Your task to perform on an android device: Show me productivity apps on the Play Store Image 0: 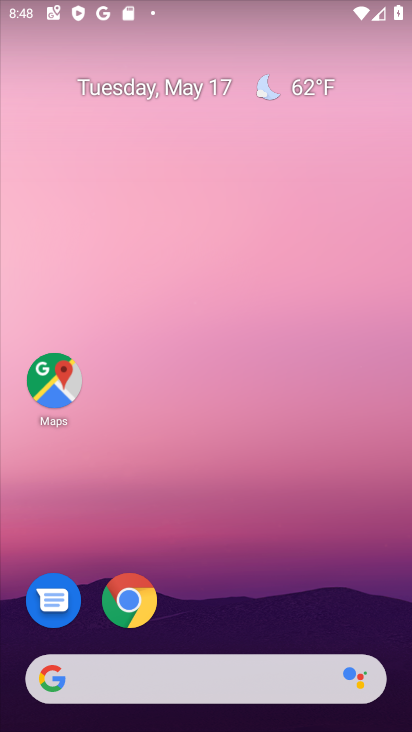
Step 0: click (171, 84)
Your task to perform on an android device: Show me productivity apps on the Play Store Image 1: 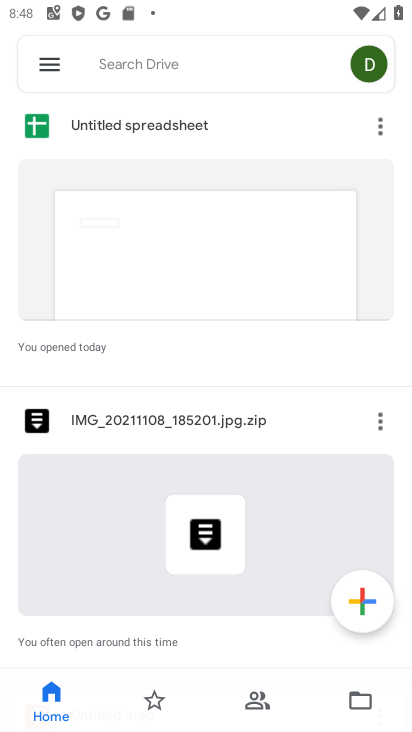
Step 1: press home button
Your task to perform on an android device: Show me productivity apps on the Play Store Image 2: 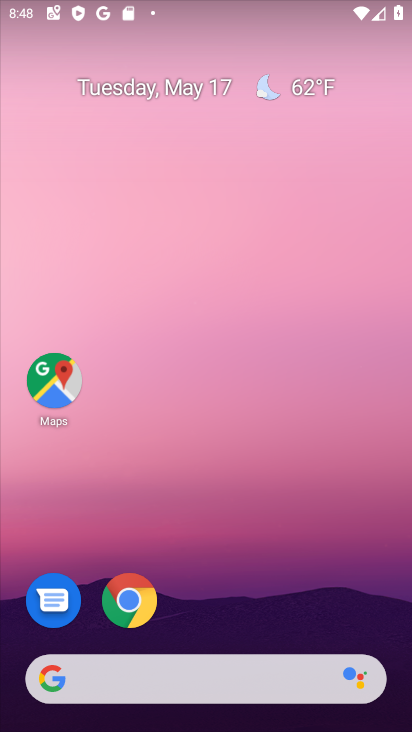
Step 2: drag from (232, 725) to (238, 39)
Your task to perform on an android device: Show me productivity apps on the Play Store Image 3: 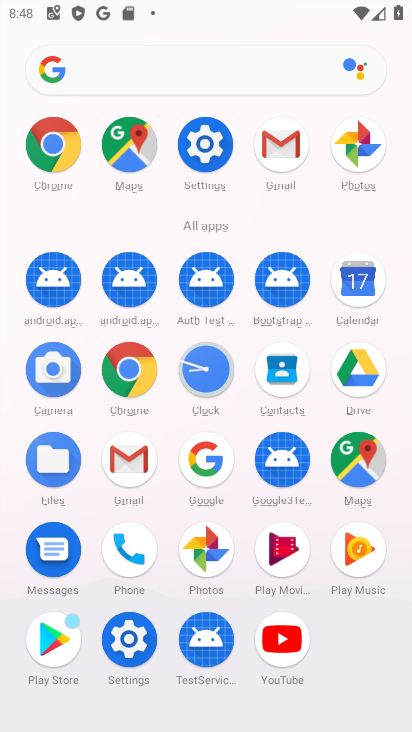
Step 3: click (56, 642)
Your task to perform on an android device: Show me productivity apps on the Play Store Image 4: 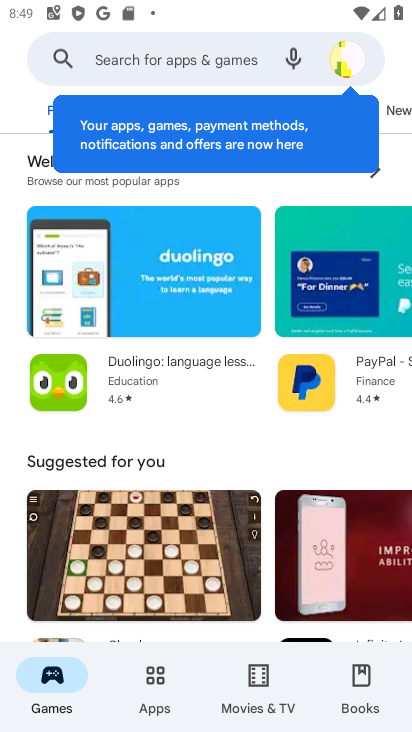
Step 4: click (162, 682)
Your task to perform on an android device: Show me productivity apps on the Play Store Image 5: 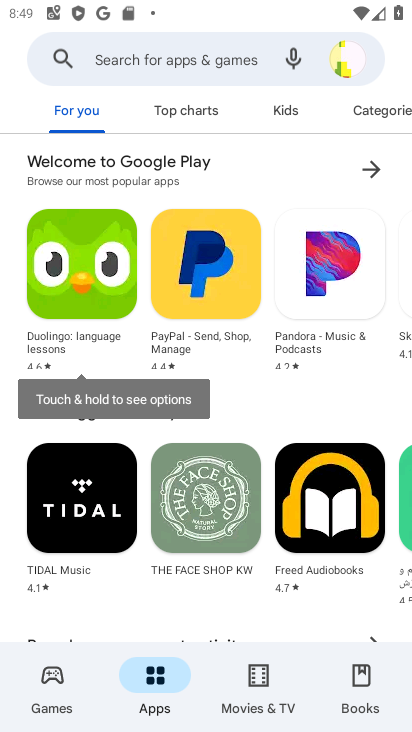
Step 5: drag from (363, 107) to (3, 160)
Your task to perform on an android device: Show me productivity apps on the Play Store Image 6: 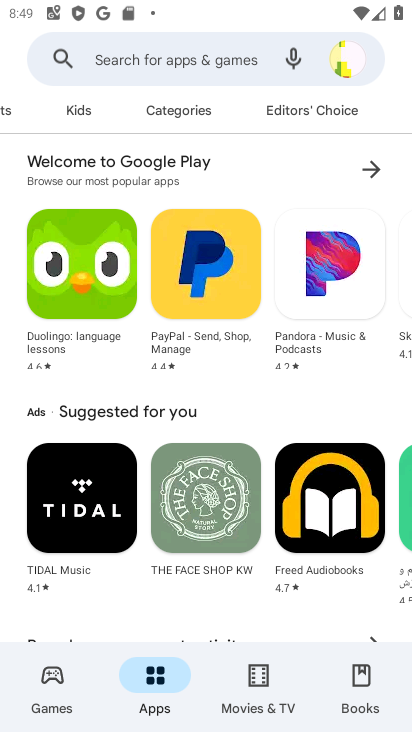
Step 6: click (166, 107)
Your task to perform on an android device: Show me productivity apps on the Play Store Image 7: 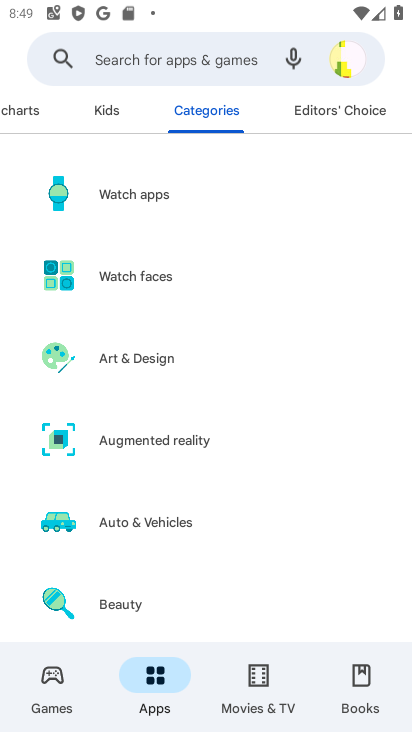
Step 7: drag from (173, 591) to (152, 189)
Your task to perform on an android device: Show me productivity apps on the Play Store Image 8: 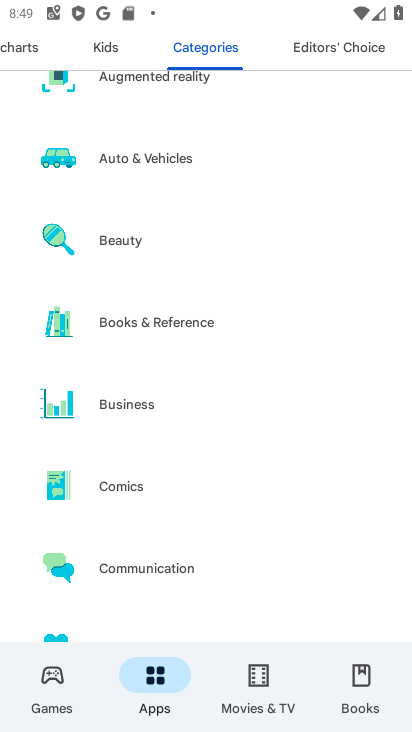
Step 8: drag from (175, 582) to (173, 259)
Your task to perform on an android device: Show me productivity apps on the Play Store Image 9: 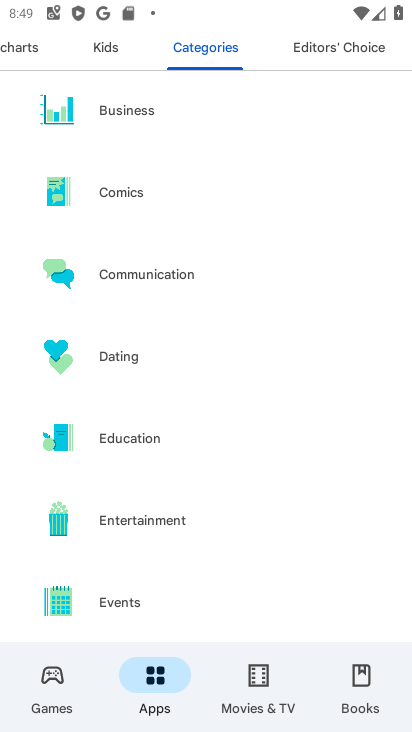
Step 9: drag from (159, 557) to (183, 208)
Your task to perform on an android device: Show me productivity apps on the Play Store Image 10: 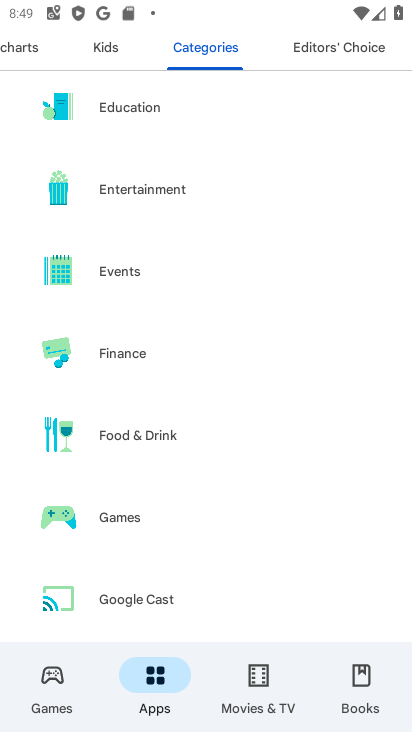
Step 10: drag from (194, 498) to (210, 218)
Your task to perform on an android device: Show me productivity apps on the Play Store Image 11: 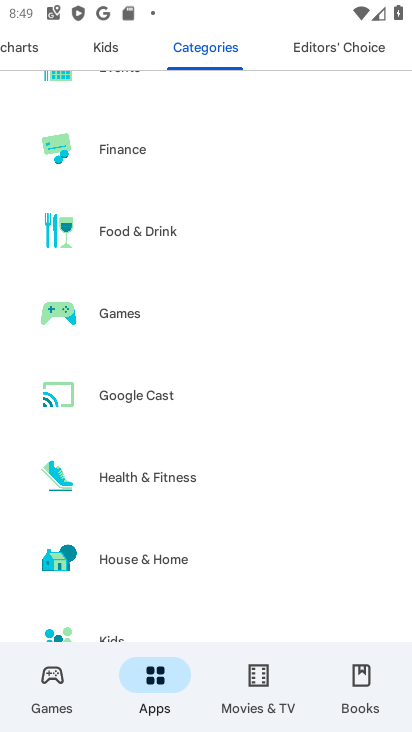
Step 11: drag from (141, 591) to (173, 191)
Your task to perform on an android device: Show me productivity apps on the Play Store Image 12: 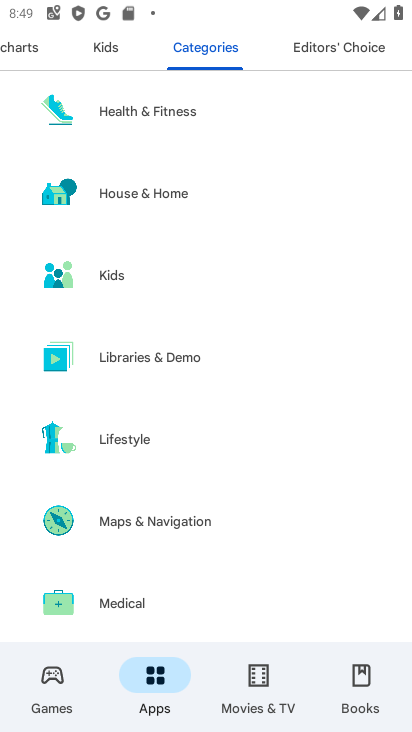
Step 12: drag from (167, 569) to (172, 220)
Your task to perform on an android device: Show me productivity apps on the Play Store Image 13: 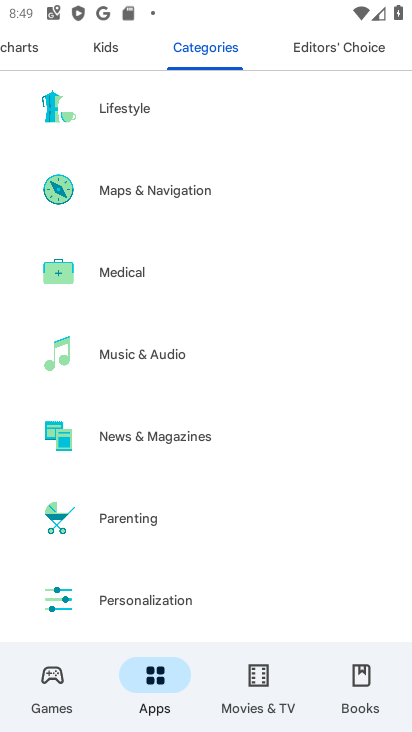
Step 13: drag from (160, 581) to (164, 275)
Your task to perform on an android device: Show me productivity apps on the Play Store Image 14: 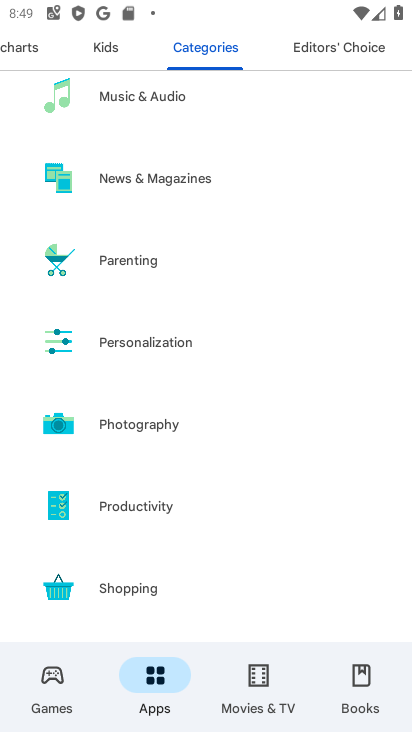
Step 14: click (134, 502)
Your task to perform on an android device: Show me productivity apps on the Play Store Image 15: 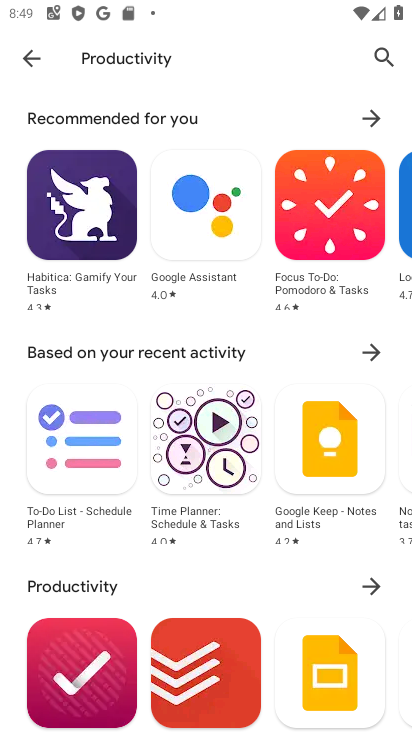
Step 15: task complete